Your task to perform on an android device: Go to battery settings Image 0: 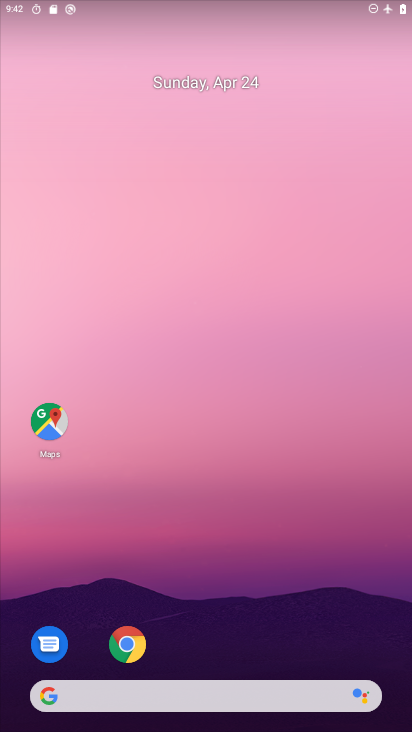
Step 0: drag from (194, 667) to (138, 39)
Your task to perform on an android device: Go to battery settings Image 1: 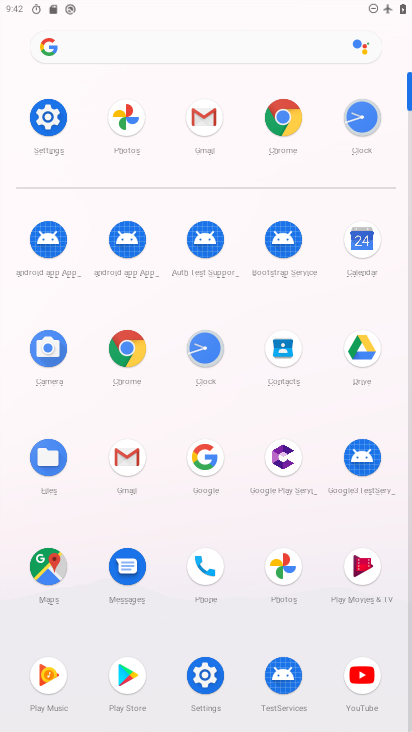
Step 1: click (52, 115)
Your task to perform on an android device: Go to battery settings Image 2: 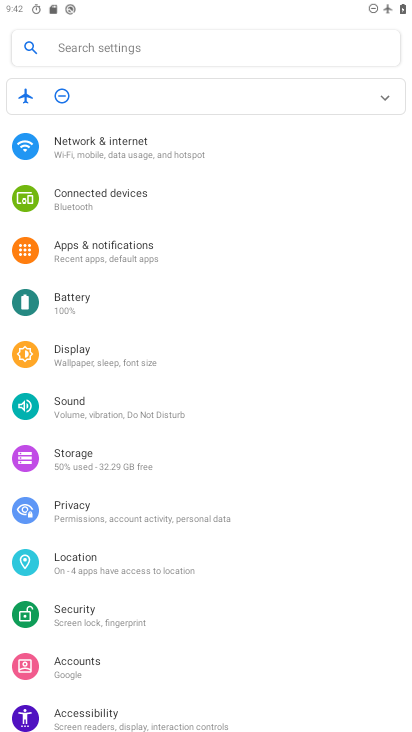
Step 2: click (61, 305)
Your task to perform on an android device: Go to battery settings Image 3: 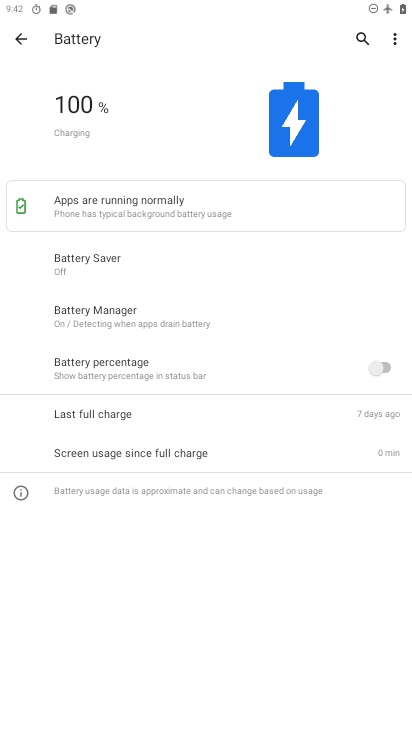
Step 3: task complete